Your task to perform on an android device: Open Youtube and go to the subscriptions tab Image 0: 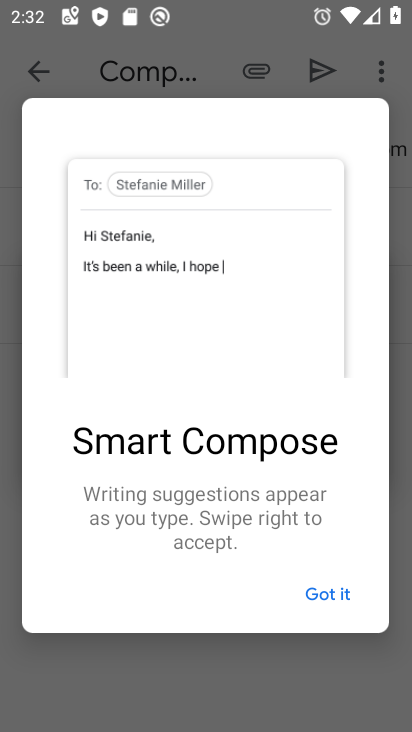
Step 0: press home button
Your task to perform on an android device: Open Youtube and go to the subscriptions tab Image 1: 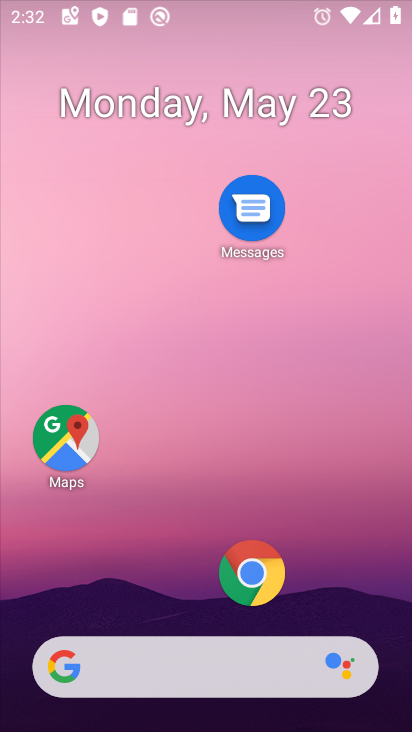
Step 1: drag from (361, 562) to (338, 6)
Your task to perform on an android device: Open Youtube and go to the subscriptions tab Image 2: 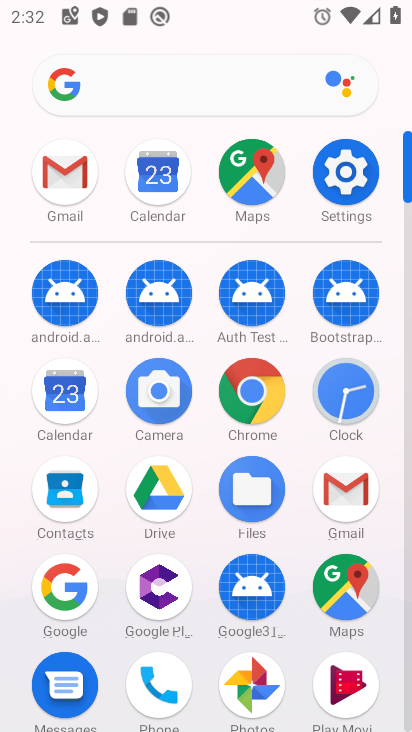
Step 2: drag from (297, 644) to (296, 172)
Your task to perform on an android device: Open Youtube and go to the subscriptions tab Image 3: 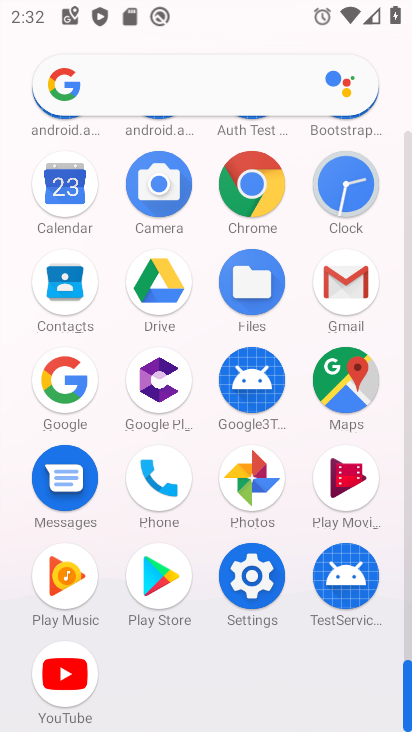
Step 3: click (55, 690)
Your task to perform on an android device: Open Youtube and go to the subscriptions tab Image 4: 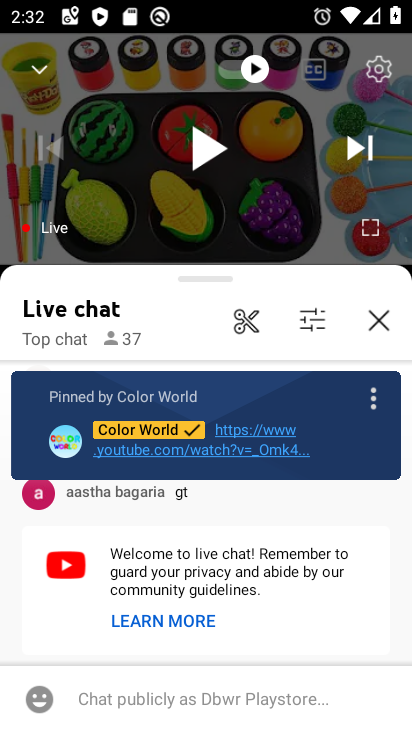
Step 4: press back button
Your task to perform on an android device: Open Youtube and go to the subscriptions tab Image 5: 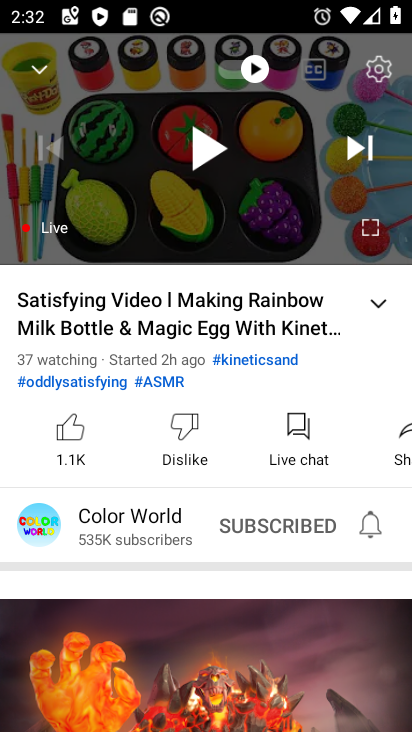
Step 5: press back button
Your task to perform on an android device: Open Youtube and go to the subscriptions tab Image 6: 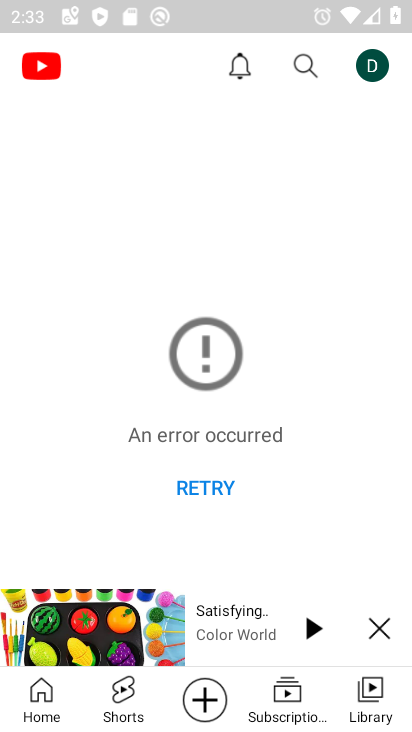
Step 6: click (284, 703)
Your task to perform on an android device: Open Youtube and go to the subscriptions tab Image 7: 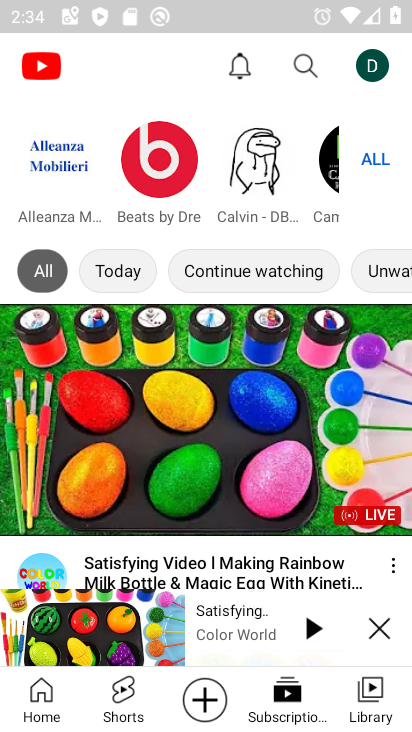
Step 7: task complete